Your task to perform on an android device: Open display settings Image 0: 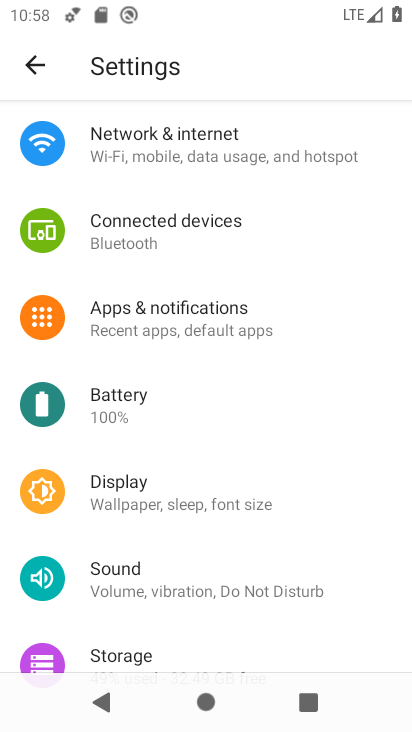
Step 0: click (127, 503)
Your task to perform on an android device: Open display settings Image 1: 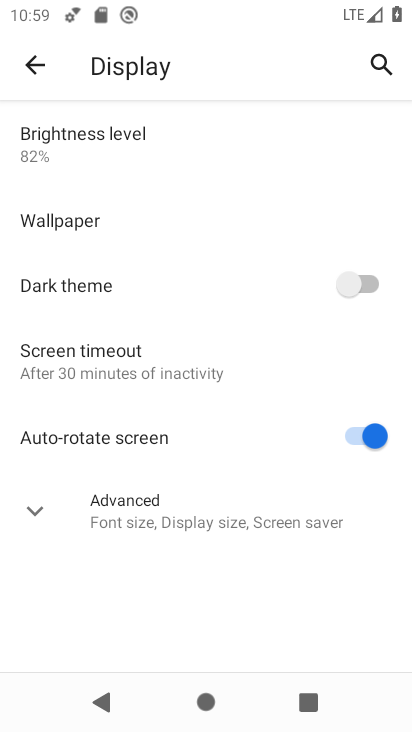
Step 1: task complete